Your task to perform on an android device: What's the weather going to be tomorrow? Image 0: 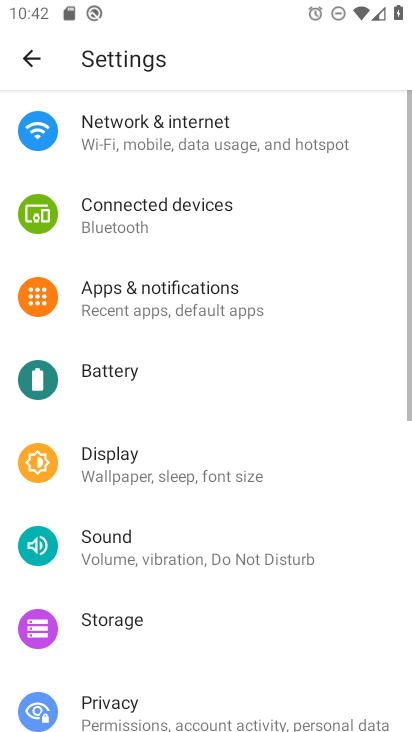
Step 0: drag from (394, 653) to (305, 109)
Your task to perform on an android device: What's the weather going to be tomorrow? Image 1: 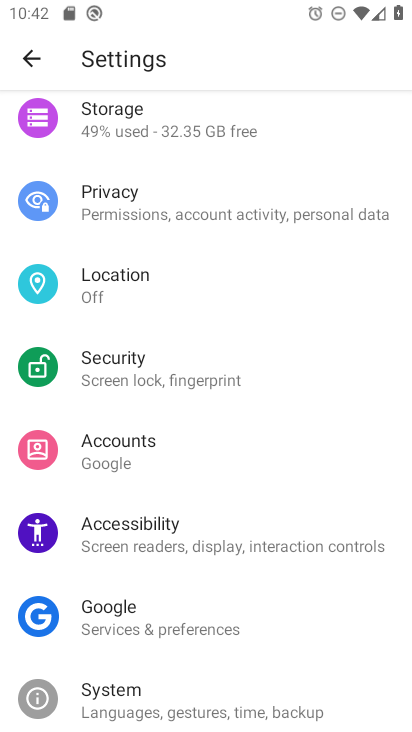
Step 1: press home button
Your task to perform on an android device: What's the weather going to be tomorrow? Image 2: 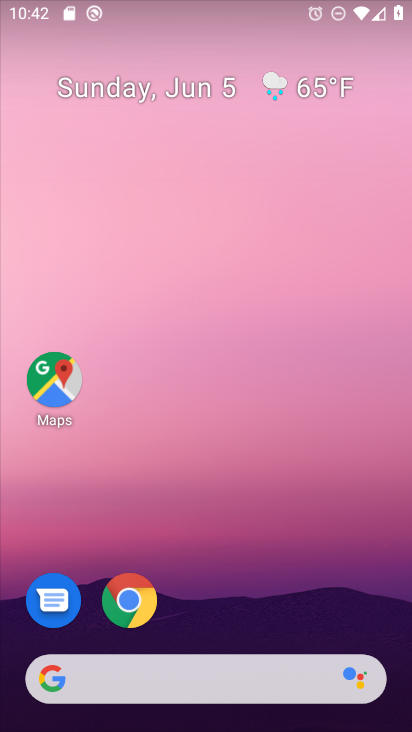
Step 2: drag from (392, 685) to (300, 91)
Your task to perform on an android device: What's the weather going to be tomorrow? Image 3: 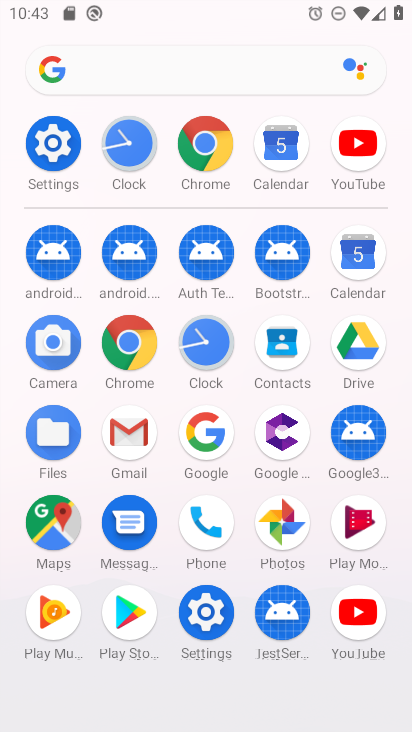
Step 3: click (201, 447)
Your task to perform on an android device: What's the weather going to be tomorrow? Image 4: 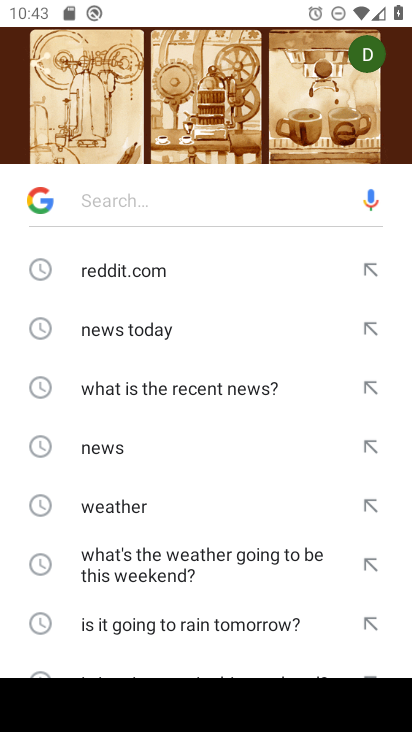
Step 4: click (164, 195)
Your task to perform on an android device: What's the weather going to be tomorrow? Image 5: 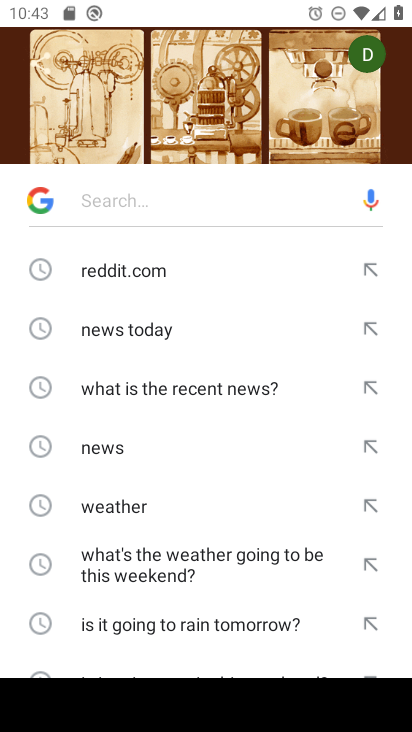
Step 5: drag from (210, 610) to (229, 159)
Your task to perform on an android device: What's the weather going to be tomorrow? Image 6: 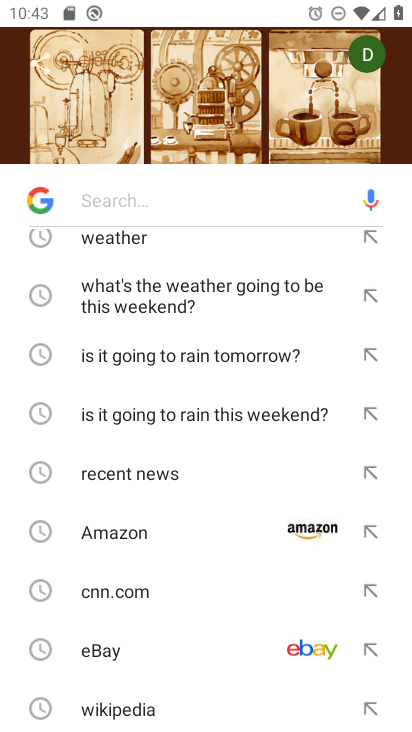
Step 6: drag from (184, 635) to (231, 274)
Your task to perform on an android device: What's the weather going to be tomorrow? Image 7: 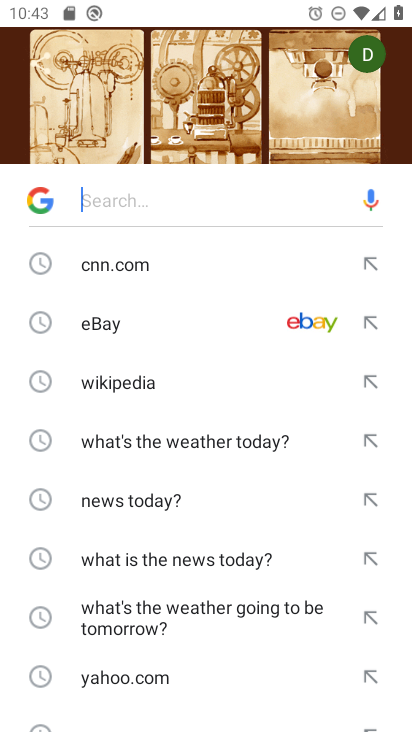
Step 7: click (197, 632)
Your task to perform on an android device: What's the weather going to be tomorrow? Image 8: 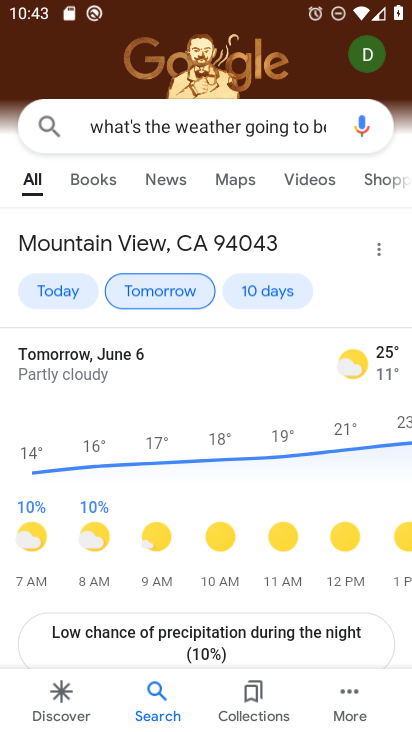
Step 8: task complete